Your task to perform on an android device: toggle improve location accuracy Image 0: 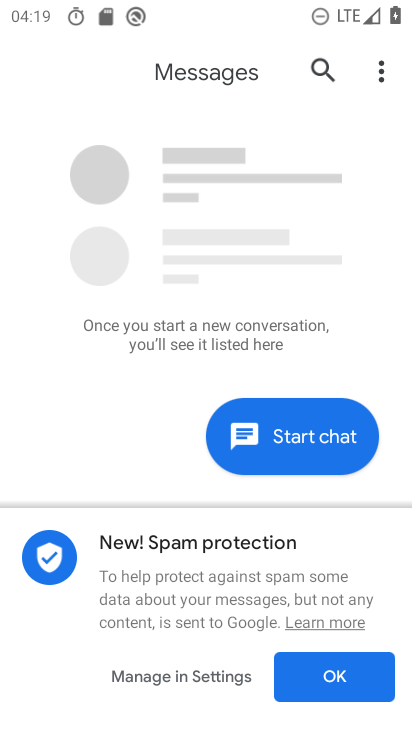
Step 0: press home button
Your task to perform on an android device: toggle improve location accuracy Image 1: 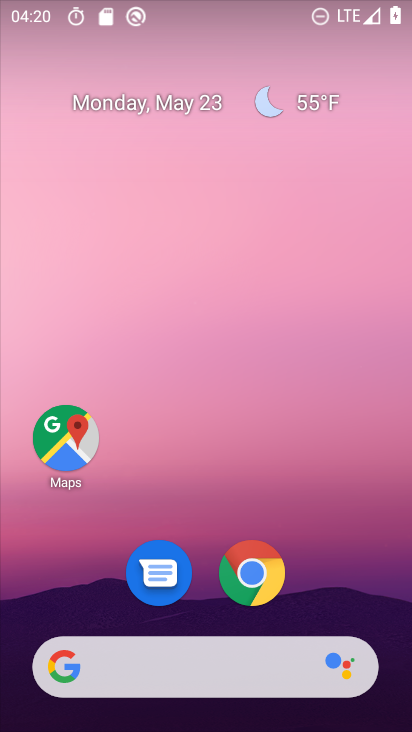
Step 1: drag from (322, 595) to (272, 31)
Your task to perform on an android device: toggle improve location accuracy Image 2: 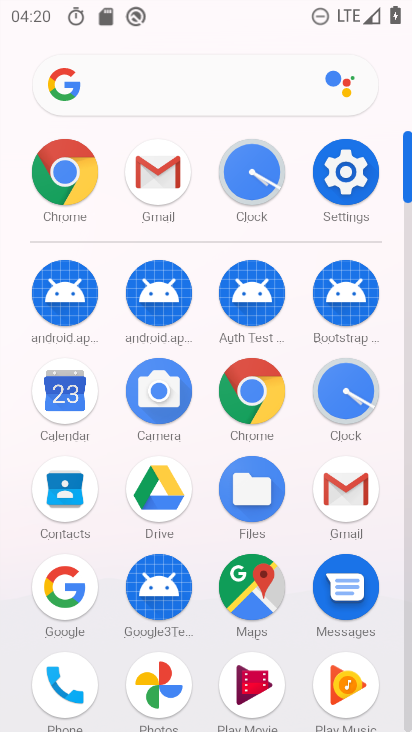
Step 2: click (349, 187)
Your task to perform on an android device: toggle improve location accuracy Image 3: 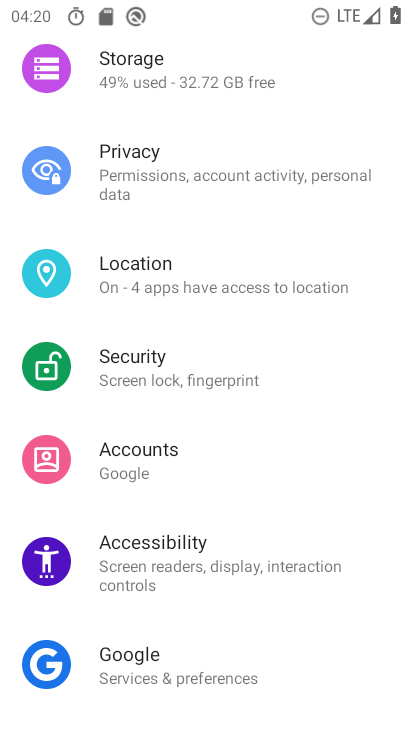
Step 3: click (234, 271)
Your task to perform on an android device: toggle improve location accuracy Image 4: 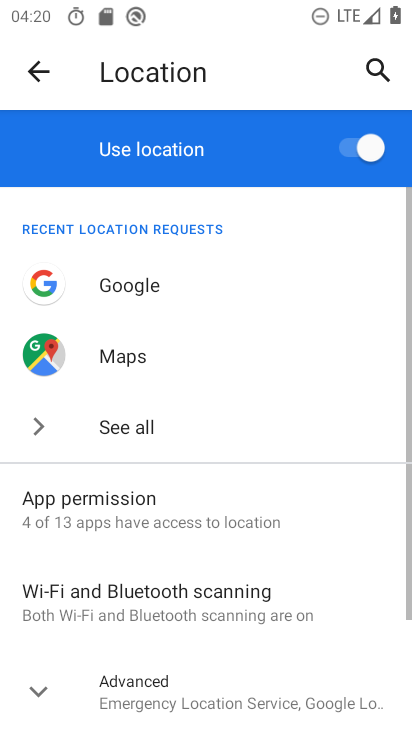
Step 4: click (241, 690)
Your task to perform on an android device: toggle improve location accuracy Image 5: 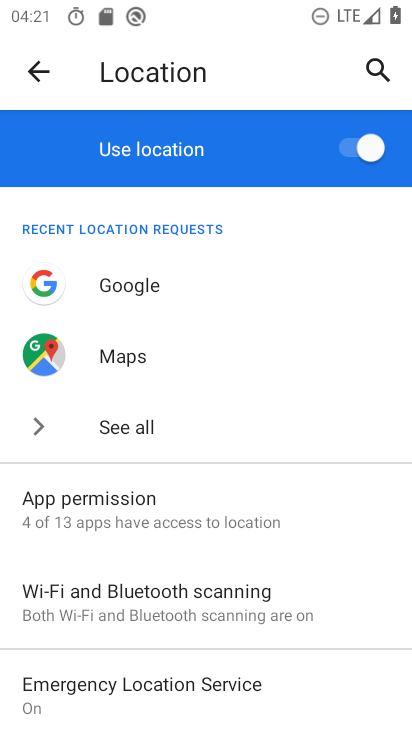
Step 5: drag from (233, 642) to (255, 303)
Your task to perform on an android device: toggle improve location accuracy Image 6: 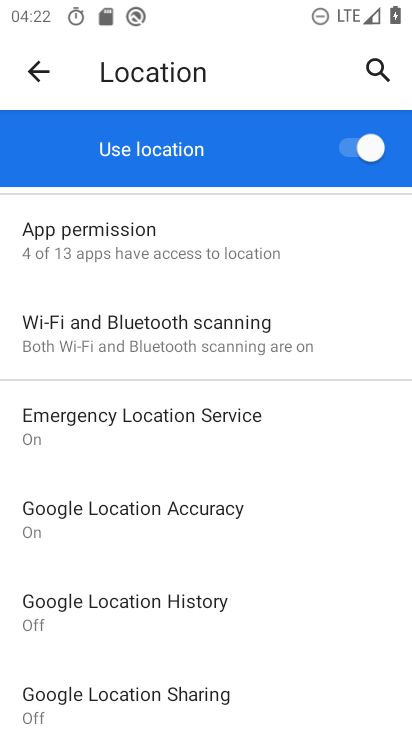
Step 6: click (161, 516)
Your task to perform on an android device: toggle improve location accuracy Image 7: 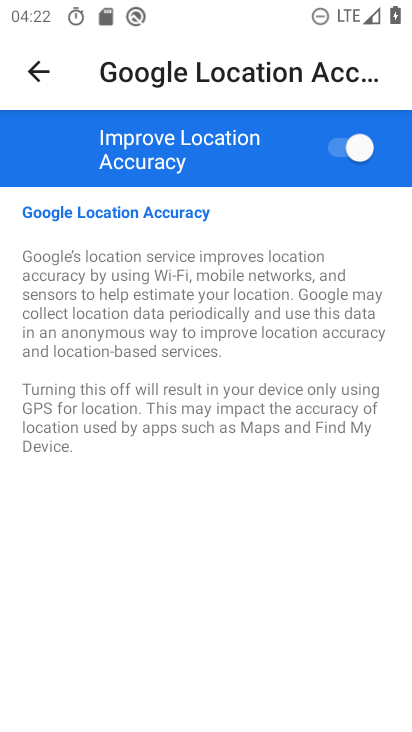
Step 7: click (341, 151)
Your task to perform on an android device: toggle improve location accuracy Image 8: 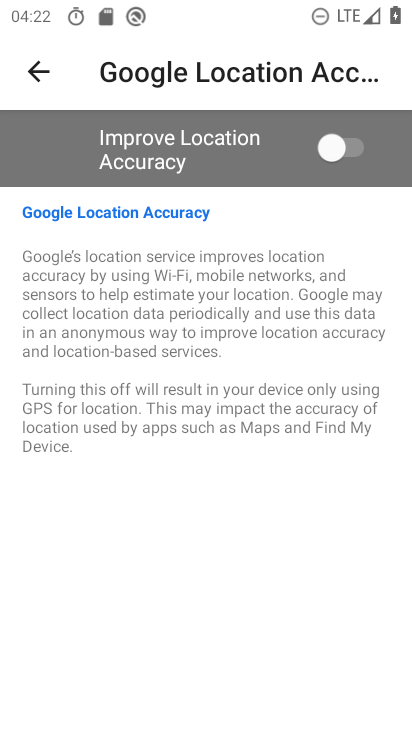
Step 8: task complete